Your task to perform on an android device: turn off picture-in-picture Image 0: 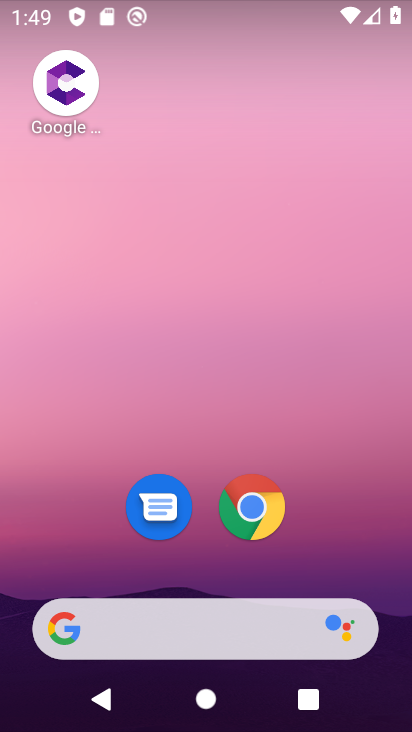
Step 0: click (254, 510)
Your task to perform on an android device: turn off picture-in-picture Image 1: 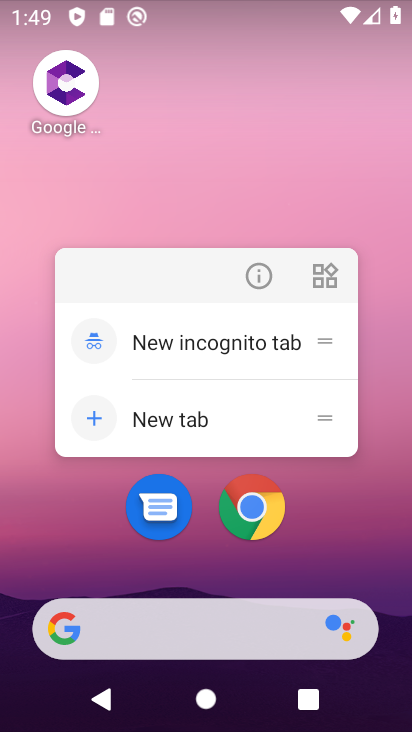
Step 1: click (259, 281)
Your task to perform on an android device: turn off picture-in-picture Image 2: 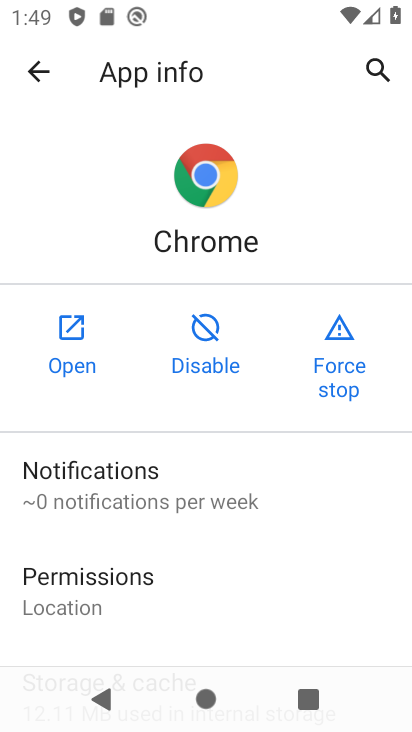
Step 2: drag from (73, 634) to (120, 162)
Your task to perform on an android device: turn off picture-in-picture Image 3: 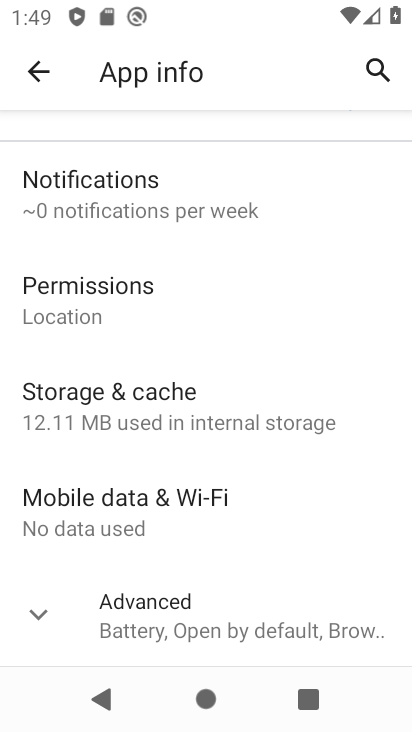
Step 3: click (155, 615)
Your task to perform on an android device: turn off picture-in-picture Image 4: 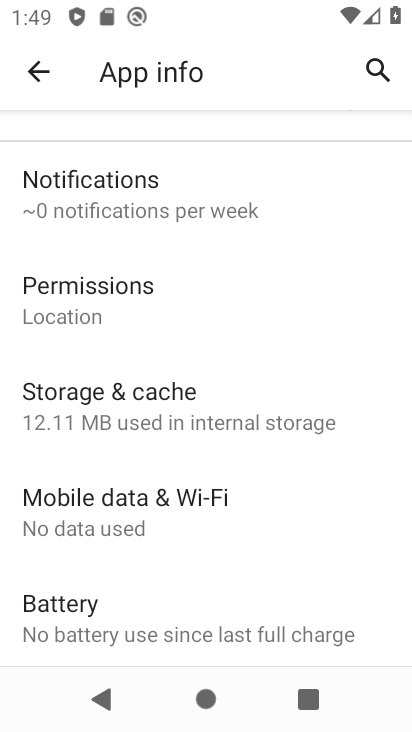
Step 4: drag from (169, 581) to (207, 164)
Your task to perform on an android device: turn off picture-in-picture Image 5: 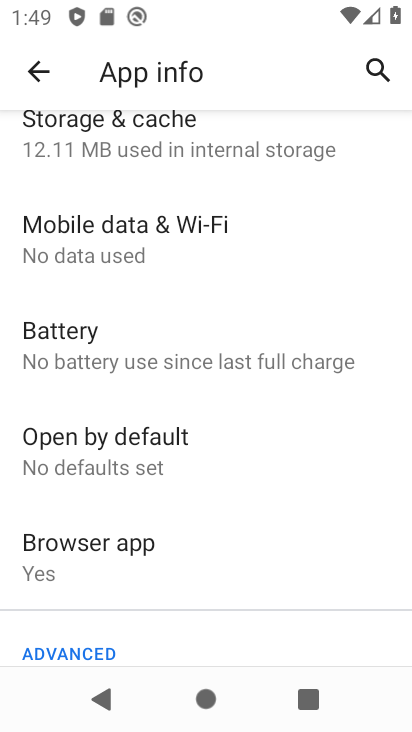
Step 5: drag from (129, 514) to (180, 230)
Your task to perform on an android device: turn off picture-in-picture Image 6: 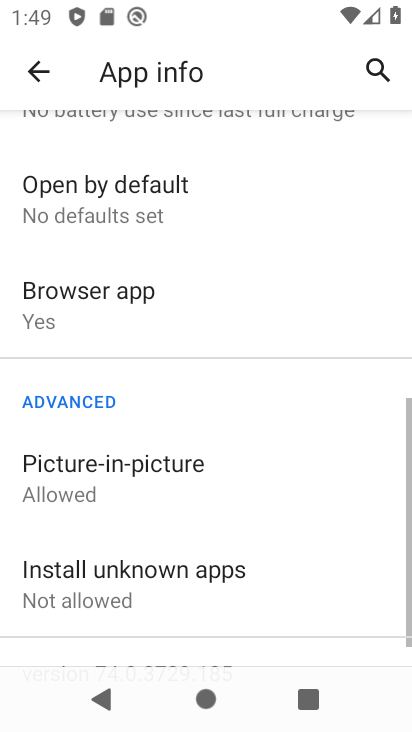
Step 6: drag from (130, 618) to (153, 342)
Your task to perform on an android device: turn off picture-in-picture Image 7: 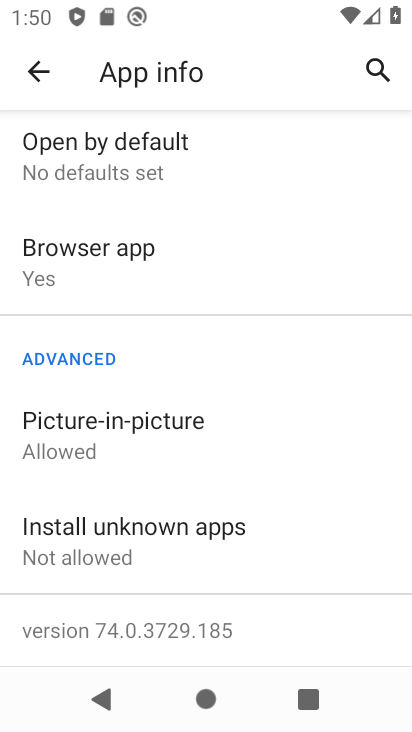
Step 7: click (115, 460)
Your task to perform on an android device: turn off picture-in-picture Image 8: 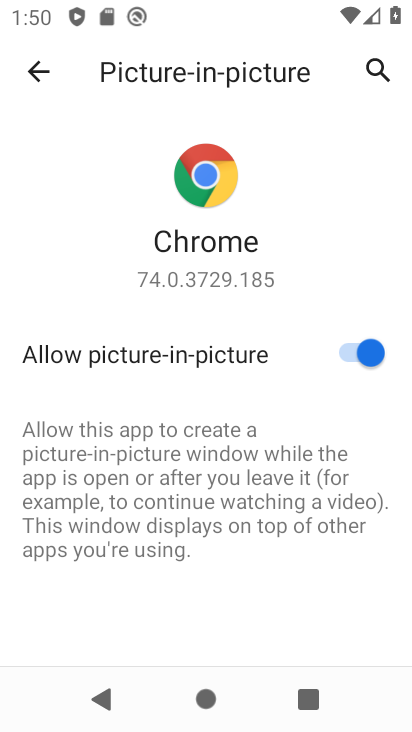
Step 8: click (352, 357)
Your task to perform on an android device: turn off picture-in-picture Image 9: 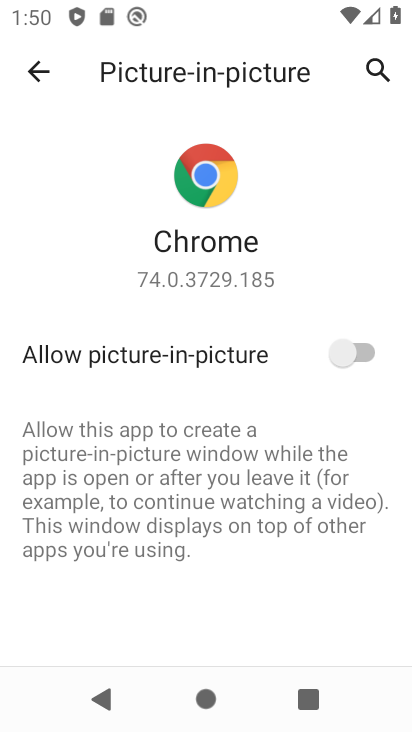
Step 9: task complete